Your task to perform on an android device: uninstall "Clock" Image 0: 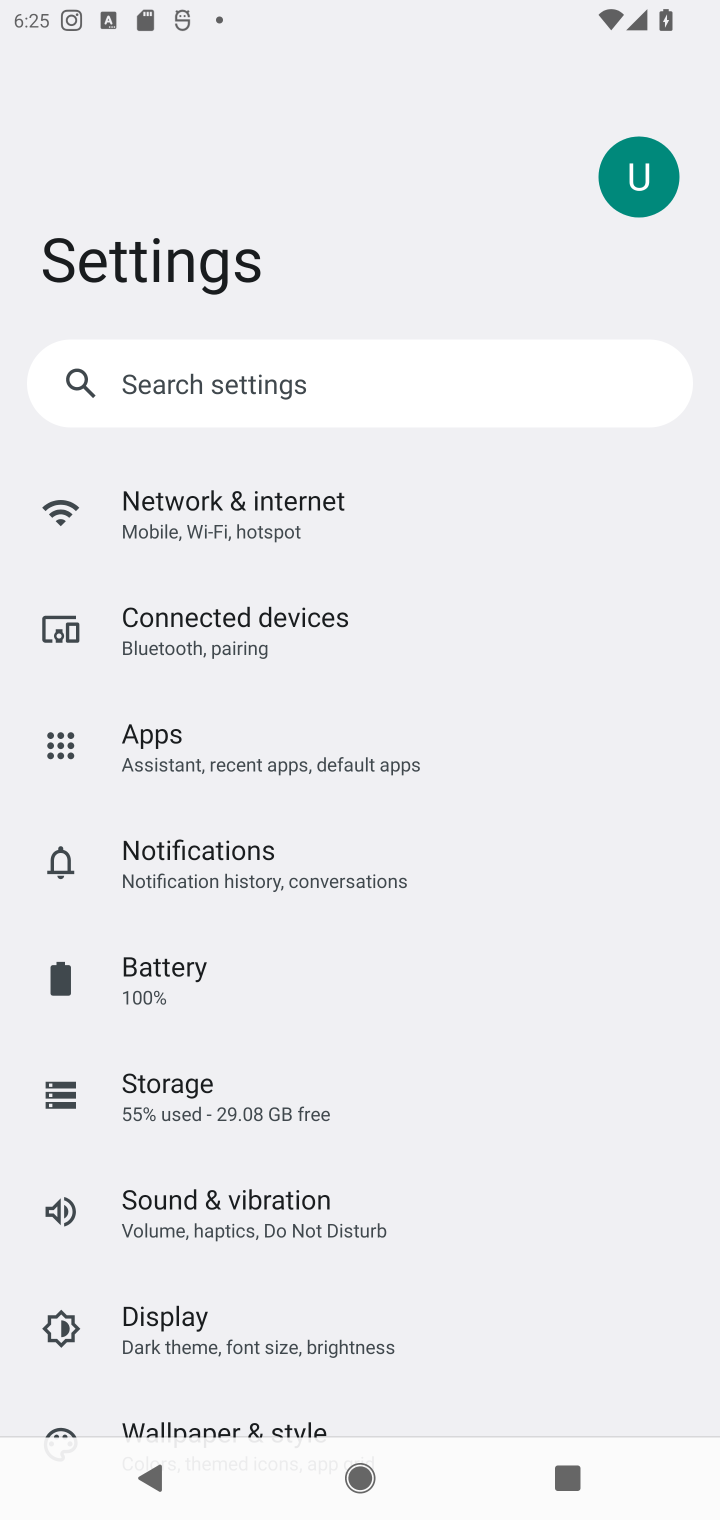
Step 0: press home button
Your task to perform on an android device: uninstall "Clock" Image 1: 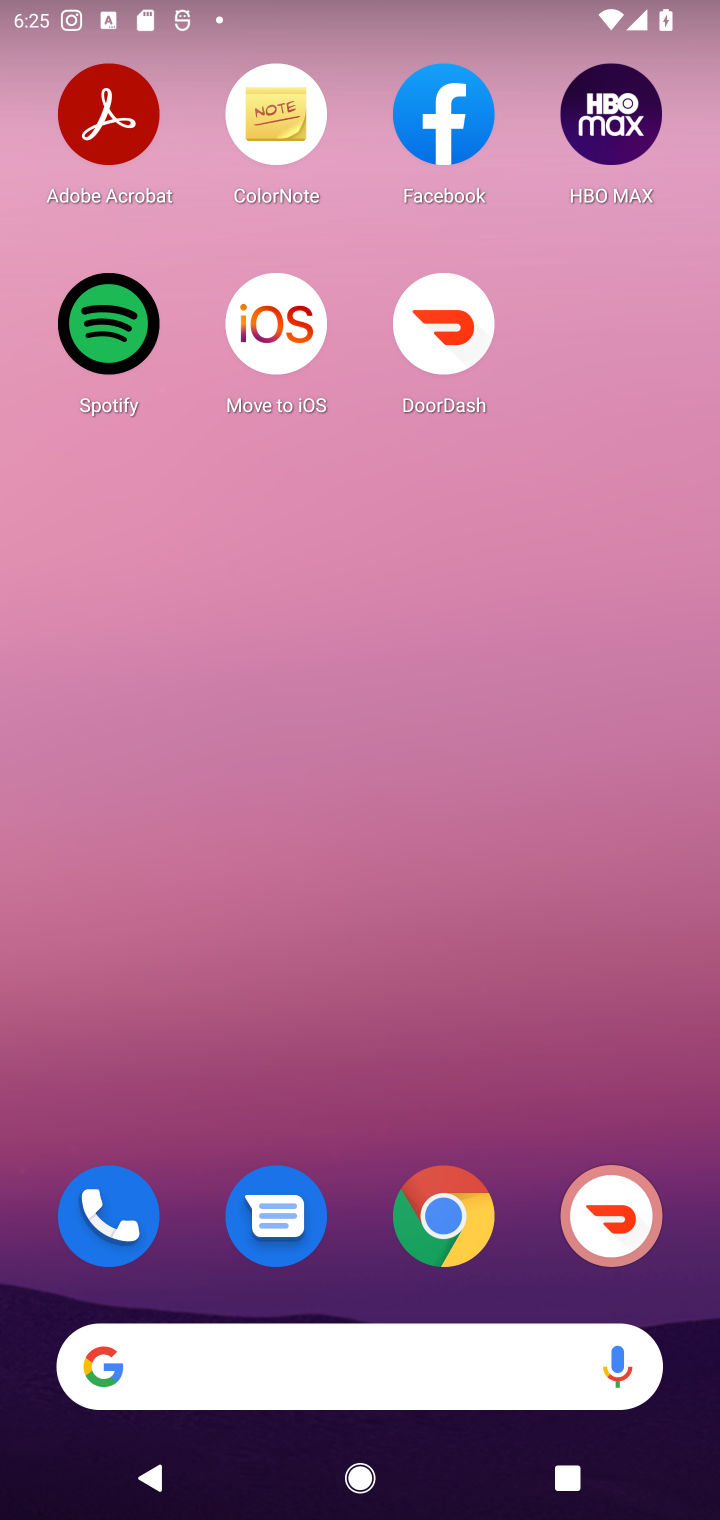
Step 1: drag from (448, 1014) to (418, 281)
Your task to perform on an android device: uninstall "Clock" Image 2: 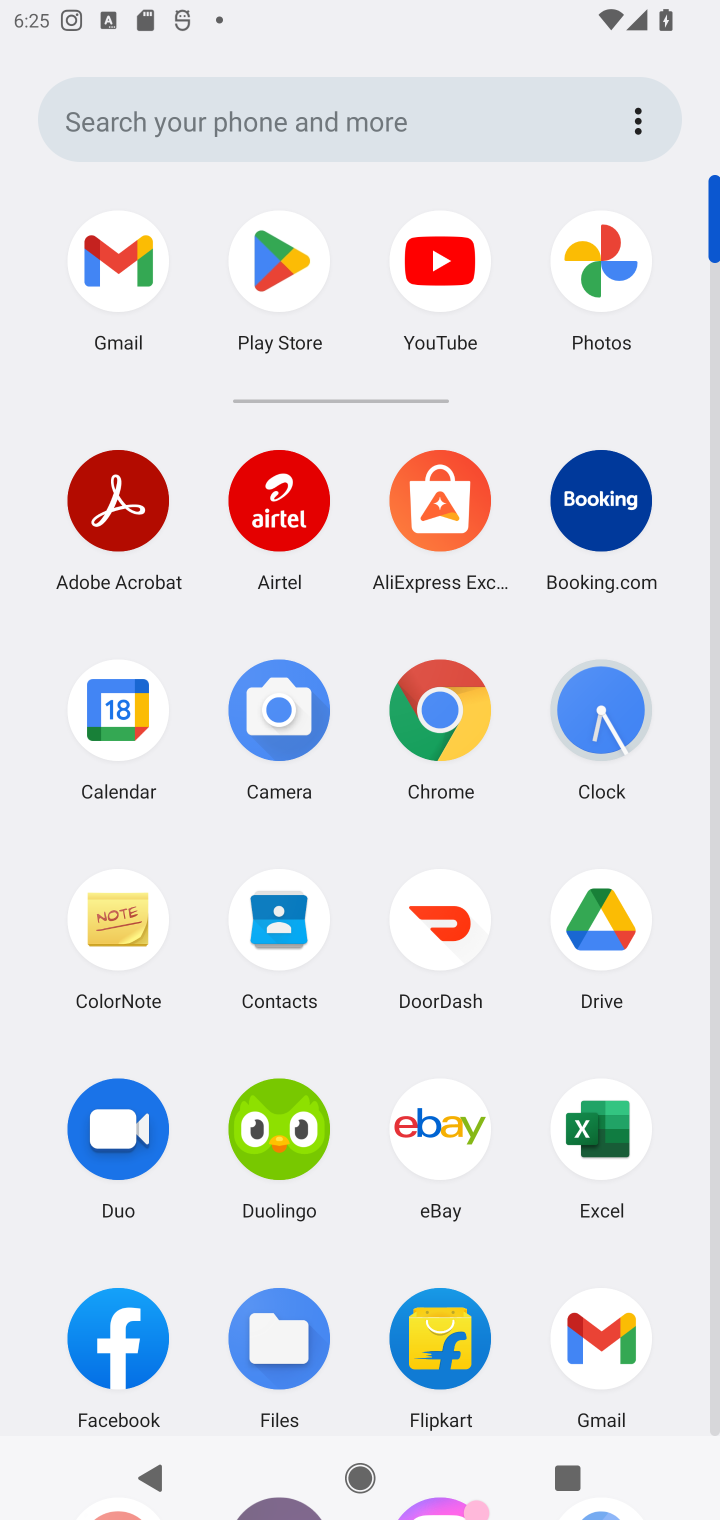
Step 2: click (263, 295)
Your task to perform on an android device: uninstall "Clock" Image 3: 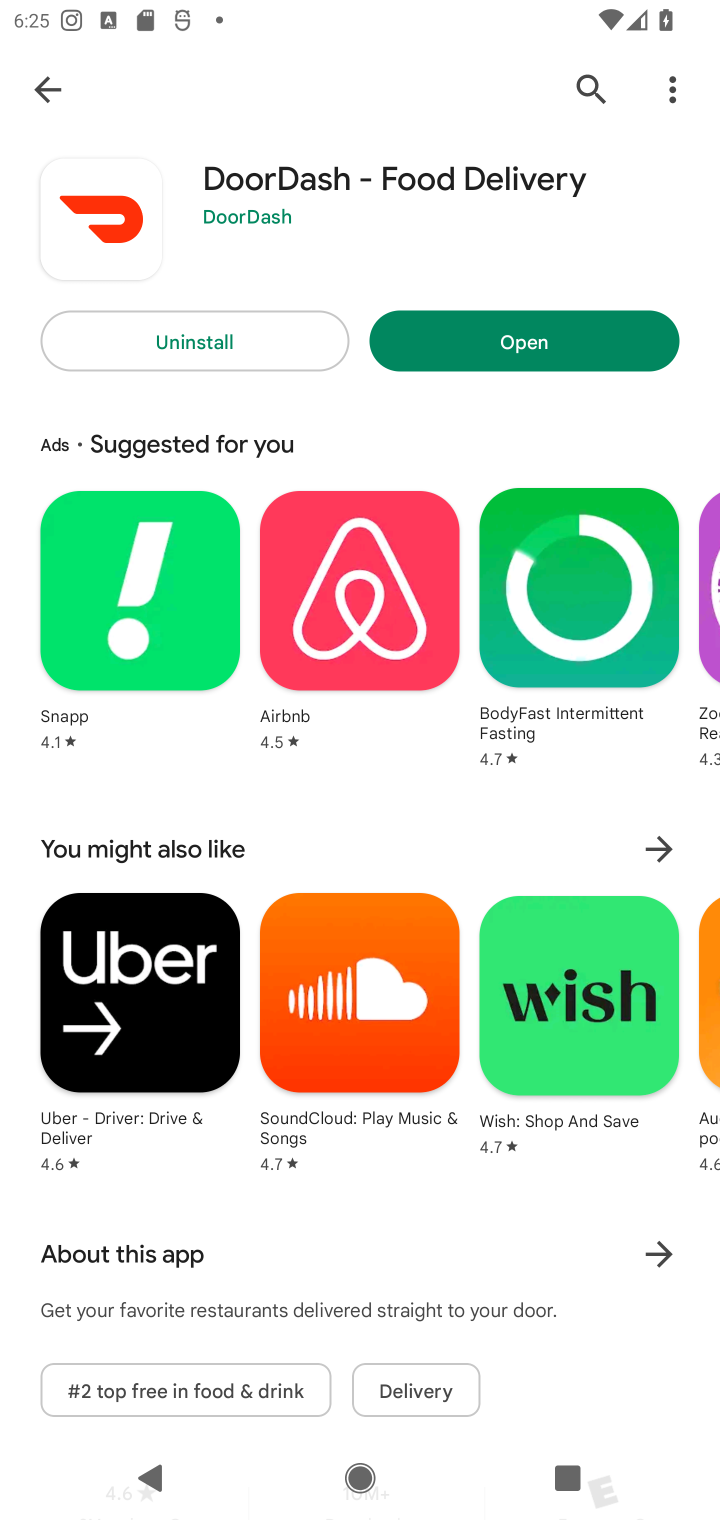
Step 3: click (630, 86)
Your task to perform on an android device: uninstall "Clock" Image 4: 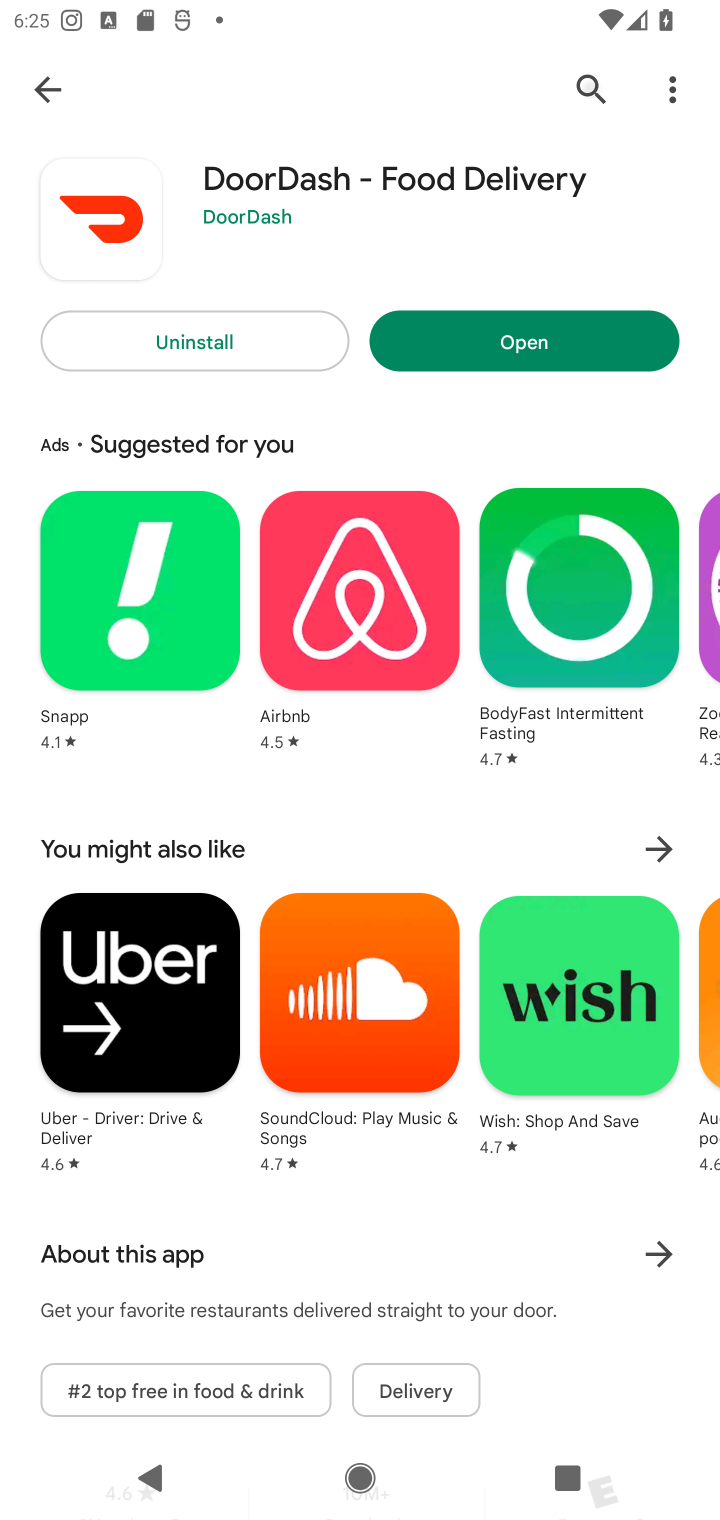
Step 4: click (603, 86)
Your task to perform on an android device: uninstall "Clock" Image 5: 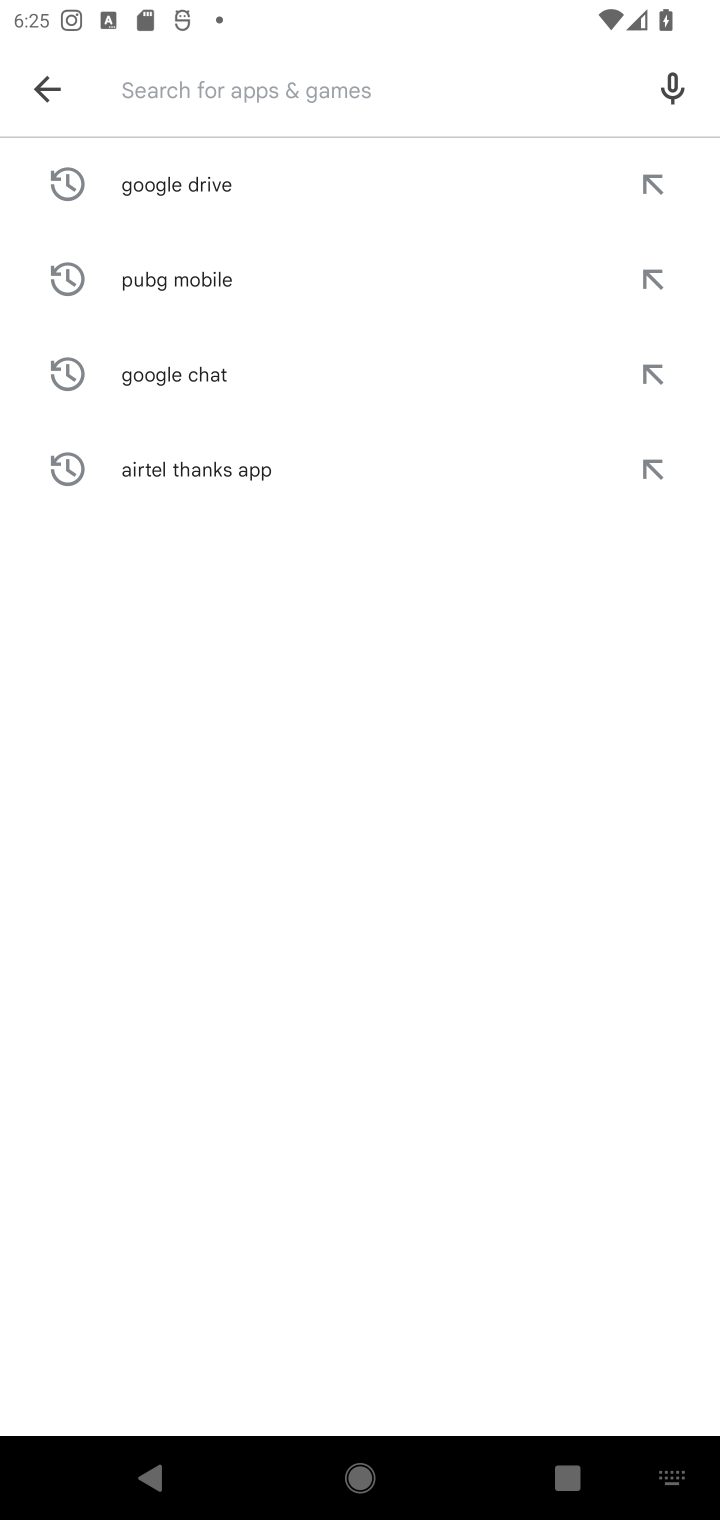
Step 5: type "Clock"
Your task to perform on an android device: uninstall "Clock" Image 6: 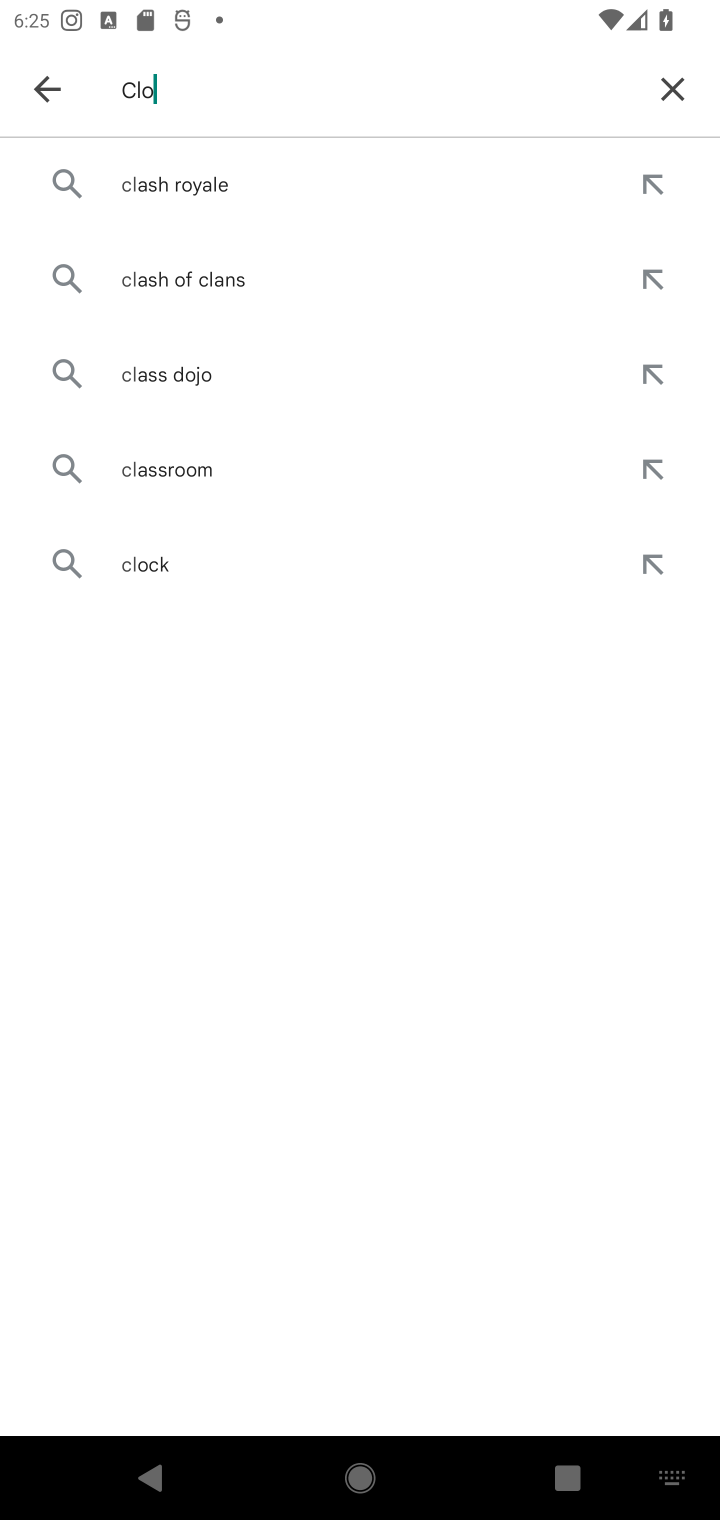
Step 6: type ""
Your task to perform on an android device: uninstall "Clock" Image 7: 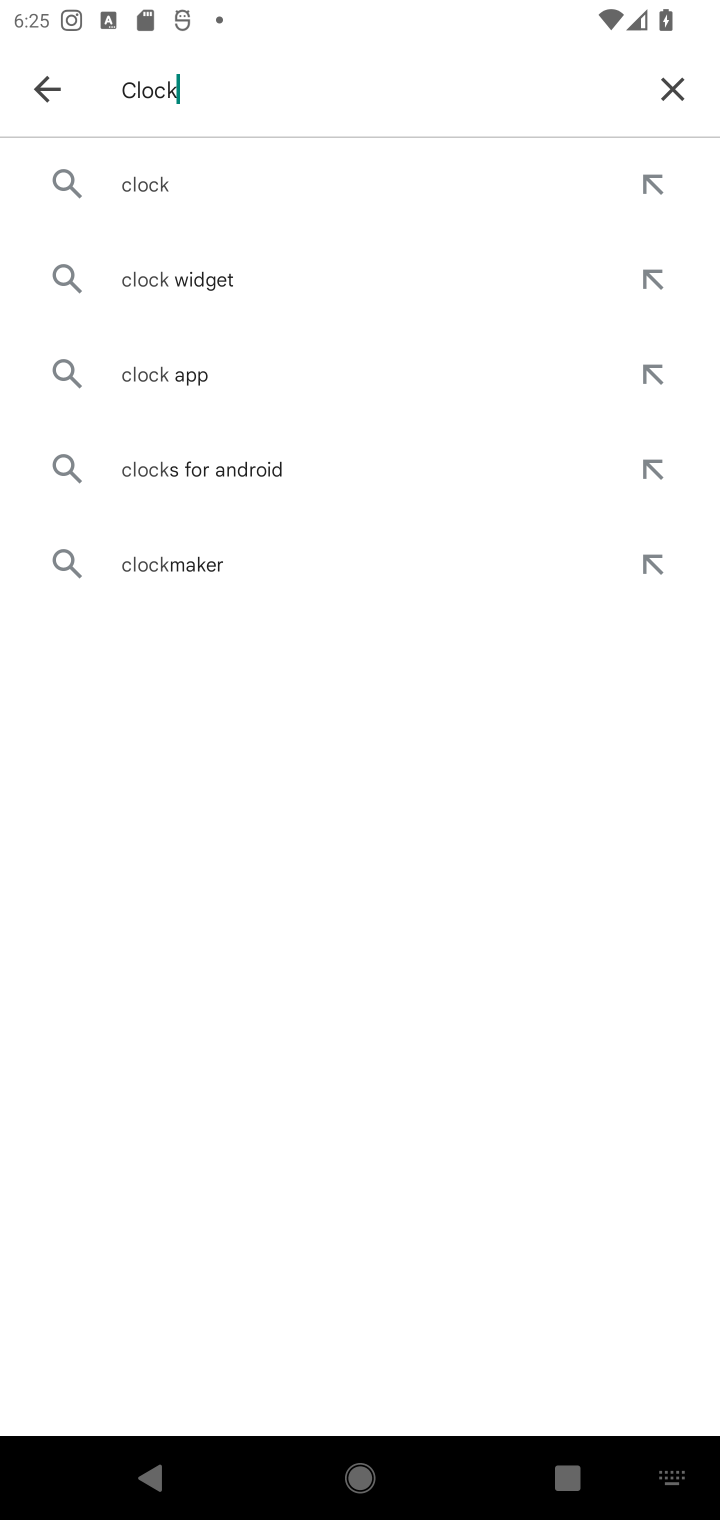
Step 7: click (223, 183)
Your task to perform on an android device: uninstall "Clock" Image 8: 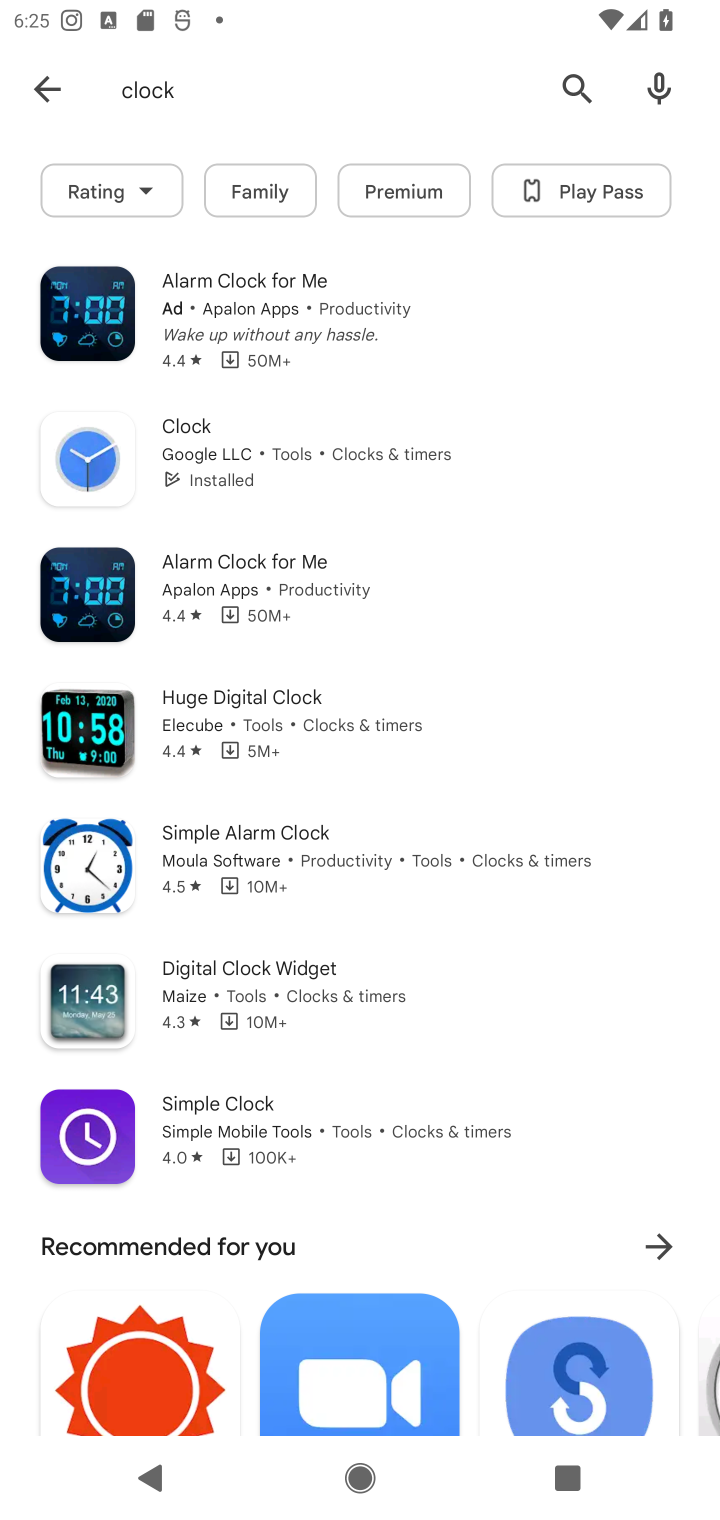
Step 8: click (320, 462)
Your task to perform on an android device: uninstall "Clock" Image 9: 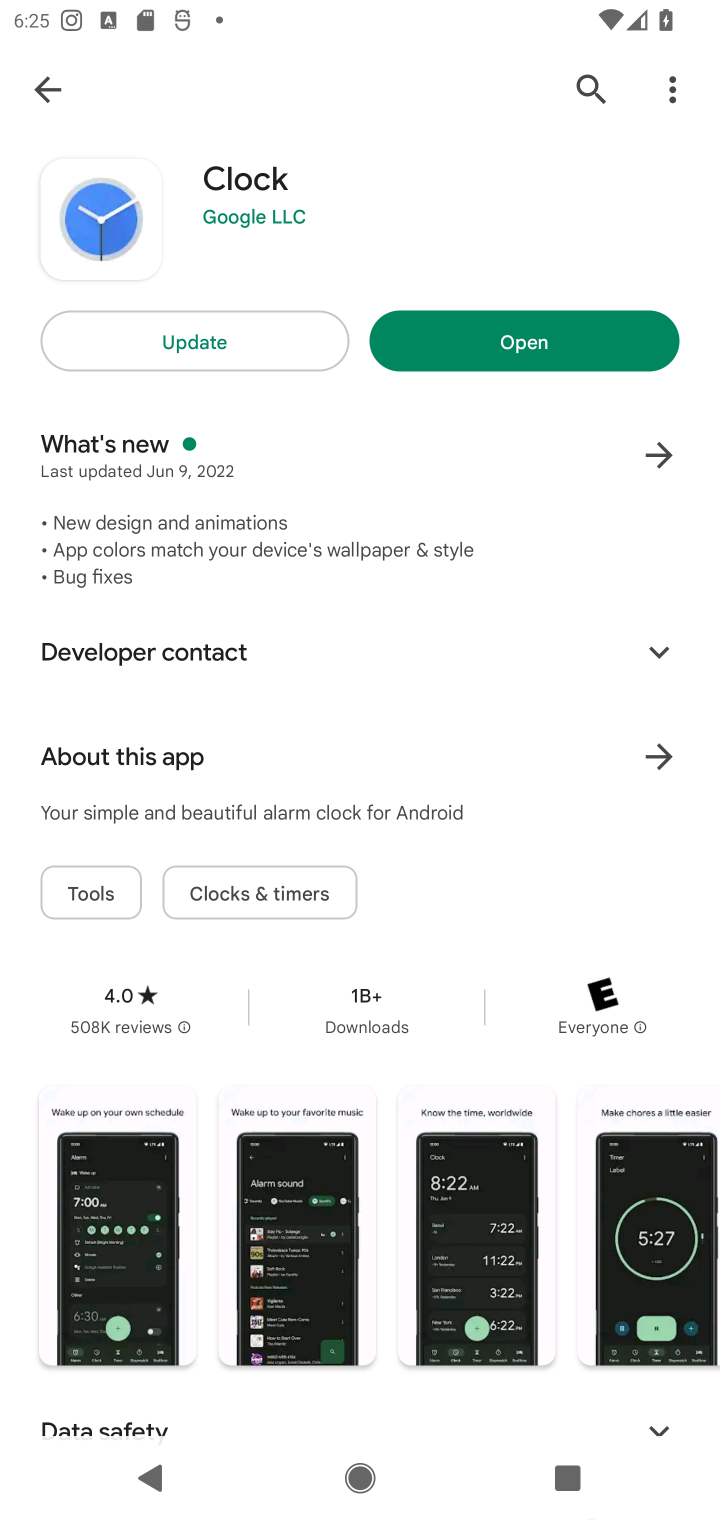
Step 9: click (137, 359)
Your task to perform on an android device: uninstall "Clock" Image 10: 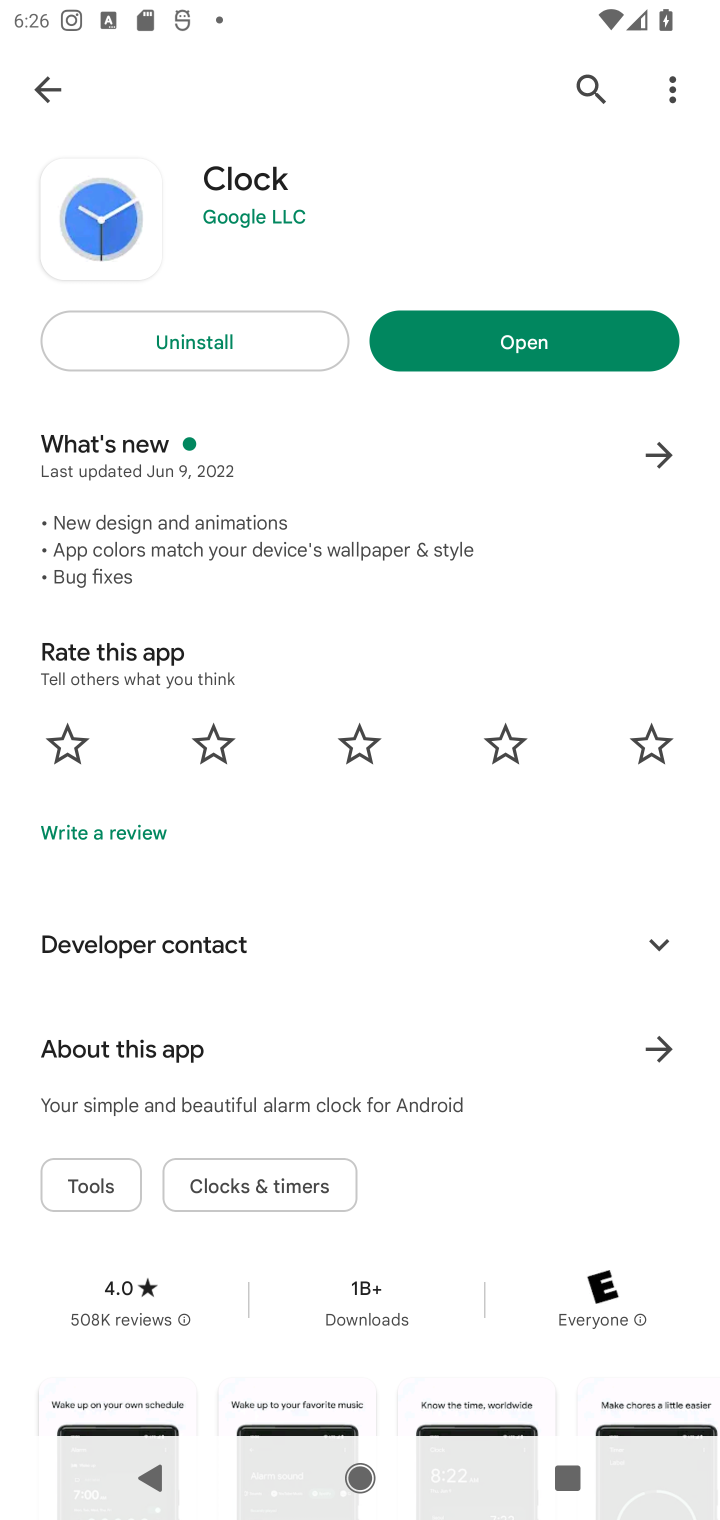
Step 10: click (178, 352)
Your task to perform on an android device: uninstall "Clock" Image 11: 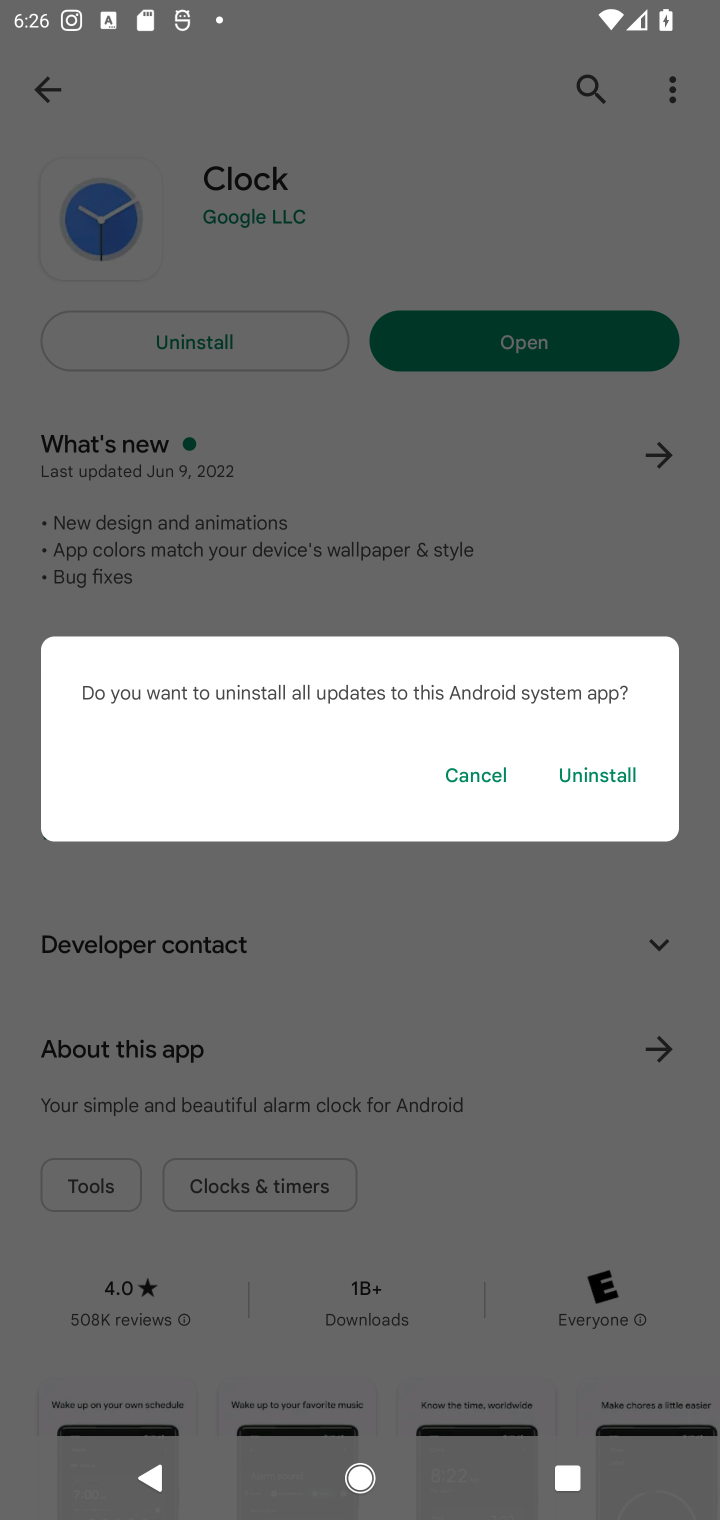
Step 11: click (602, 784)
Your task to perform on an android device: uninstall "Clock" Image 12: 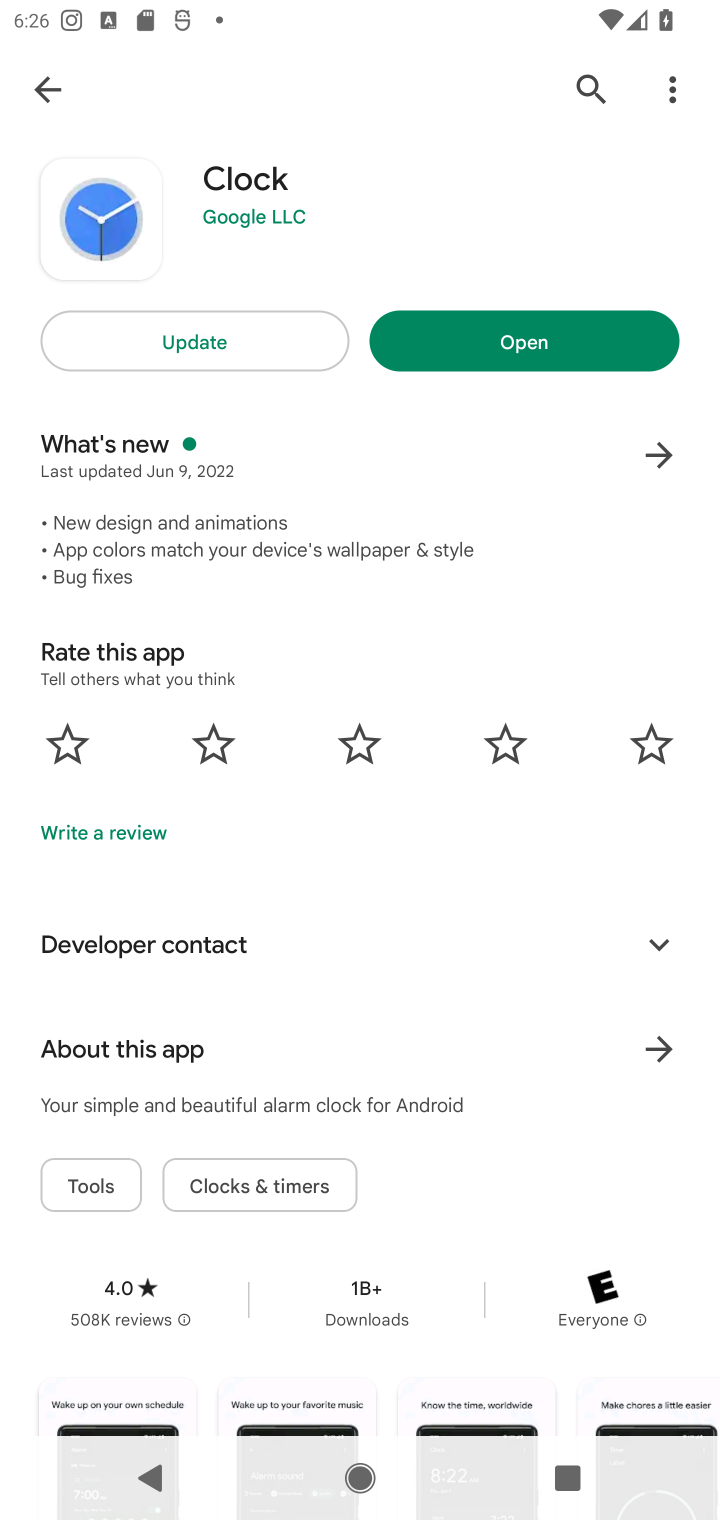
Step 12: task complete